Your task to perform on an android device: Search for "razer blade" on amazon, select the first entry, and add it to the cart. Image 0: 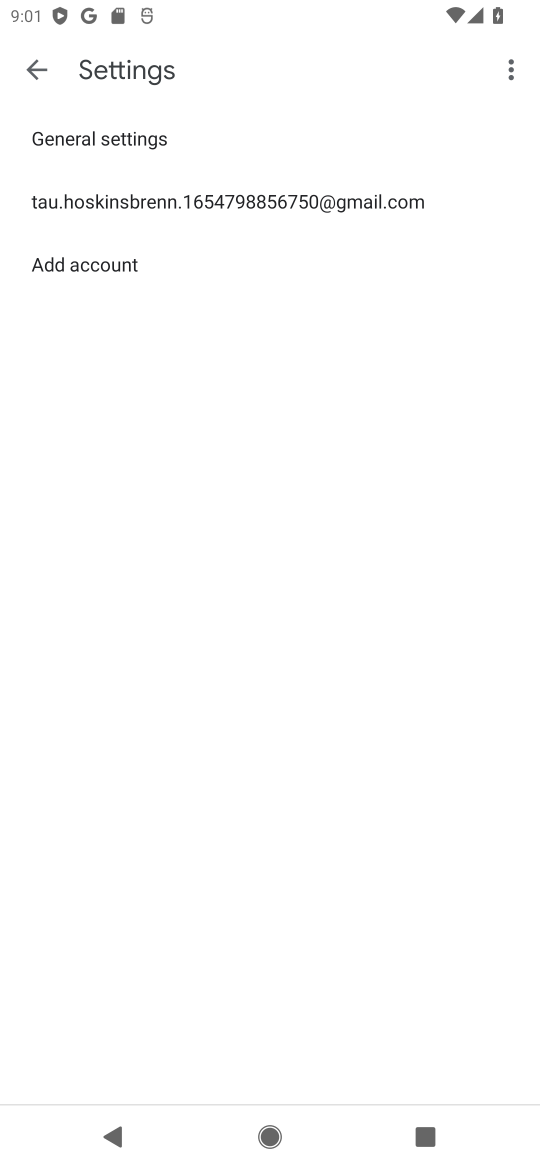
Step 0: press home button
Your task to perform on an android device: Search for "razer blade" on amazon, select the first entry, and add it to the cart. Image 1: 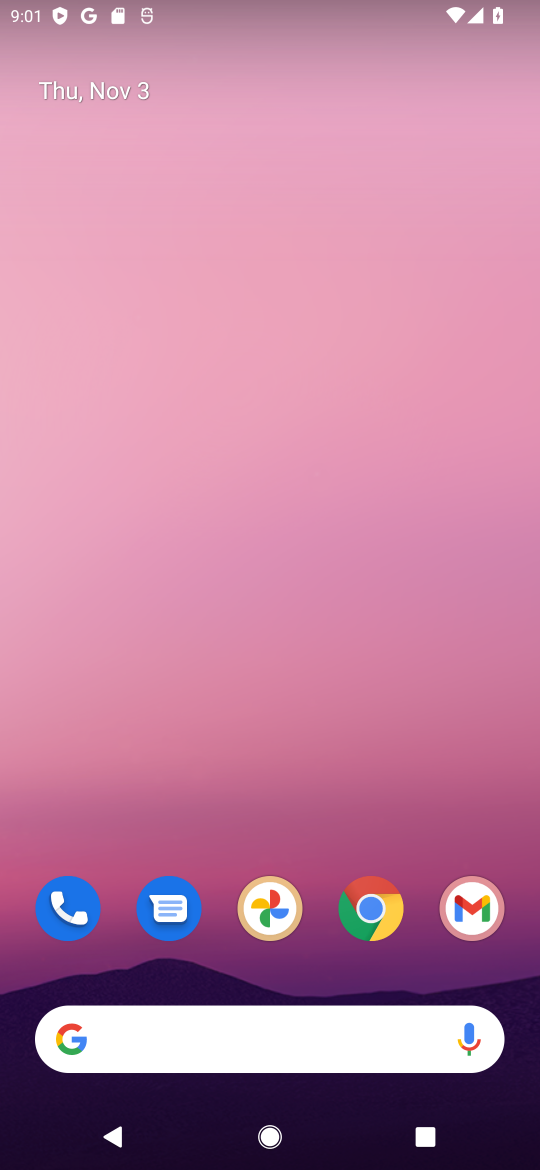
Step 1: click (376, 928)
Your task to perform on an android device: Search for "razer blade" on amazon, select the first entry, and add it to the cart. Image 2: 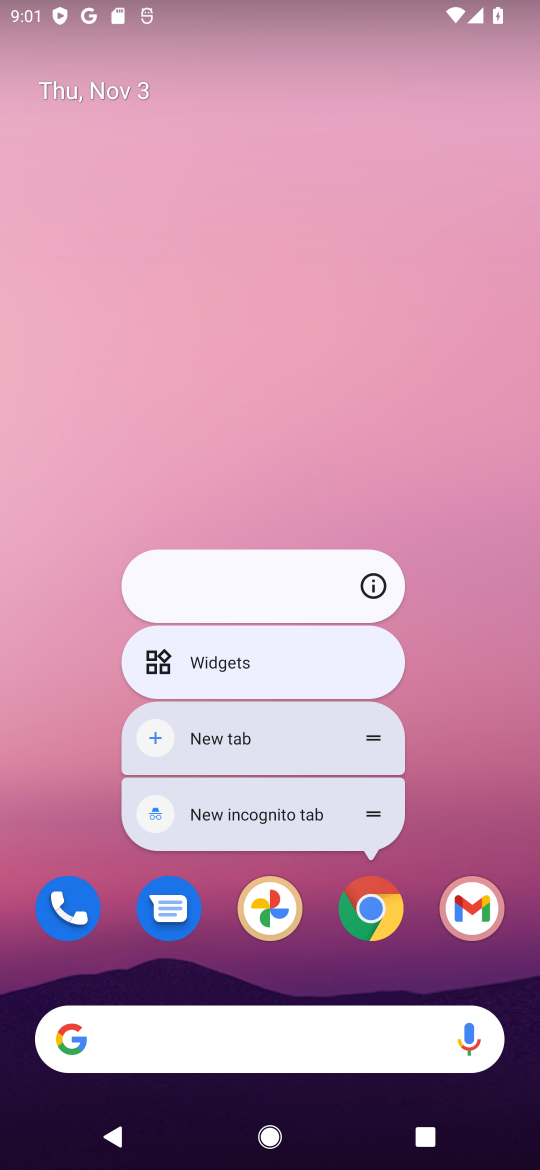
Step 2: click (376, 928)
Your task to perform on an android device: Search for "razer blade" on amazon, select the first entry, and add it to the cart. Image 3: 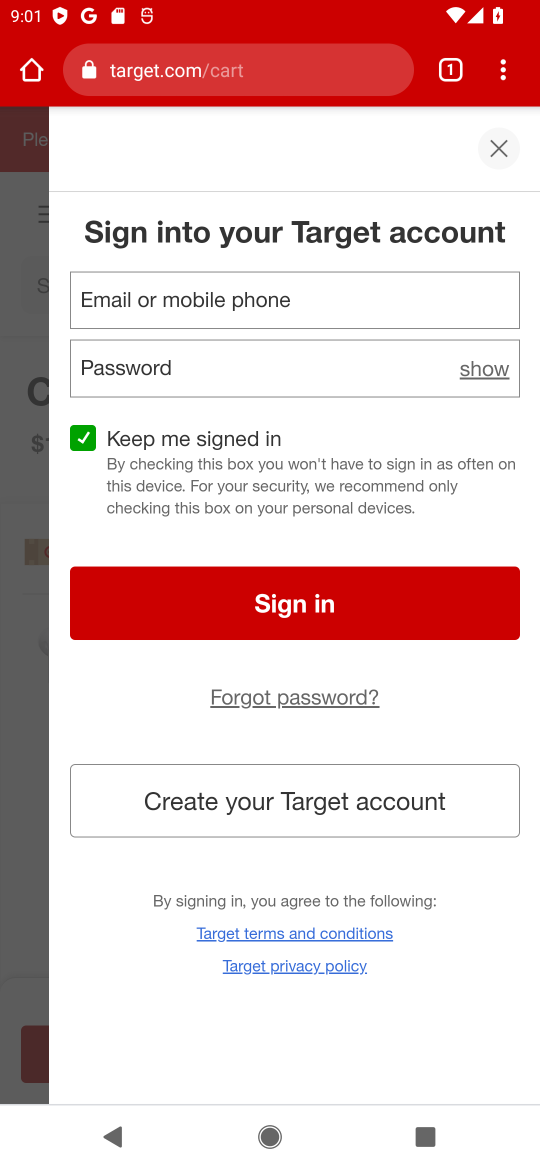
Step 3: click (496, 143)
Your task to perform on an android device: Search for "razer blade" on amazon, select the first entry, and add it to the cart. Image 4: 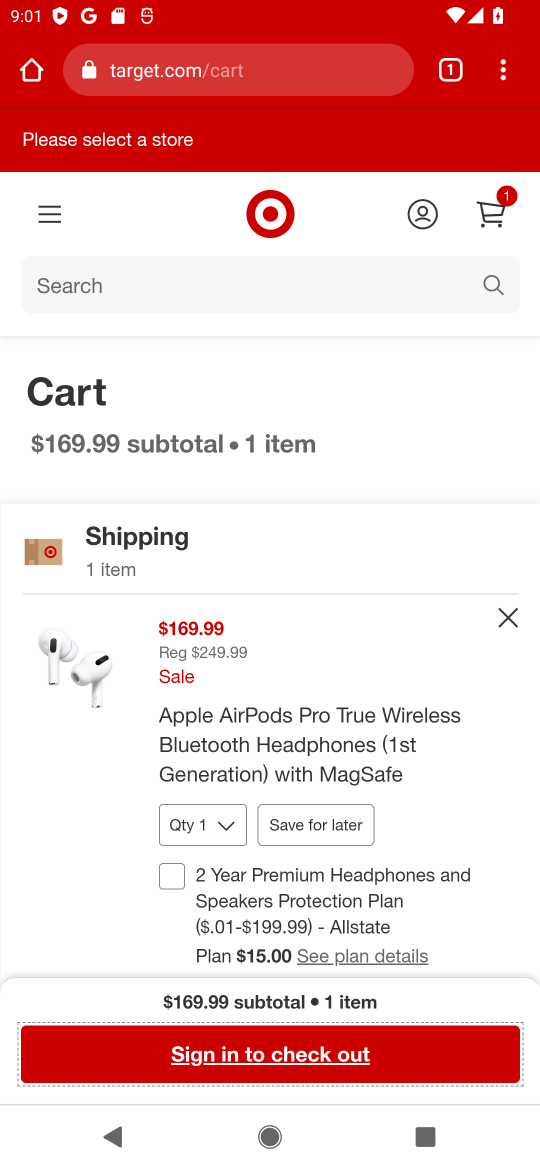
Step 4: click (314, 63)
Your task to perform on an android device: Search for "razer blade" on amazon, select the first entry, and add it to the cart. Image 5: 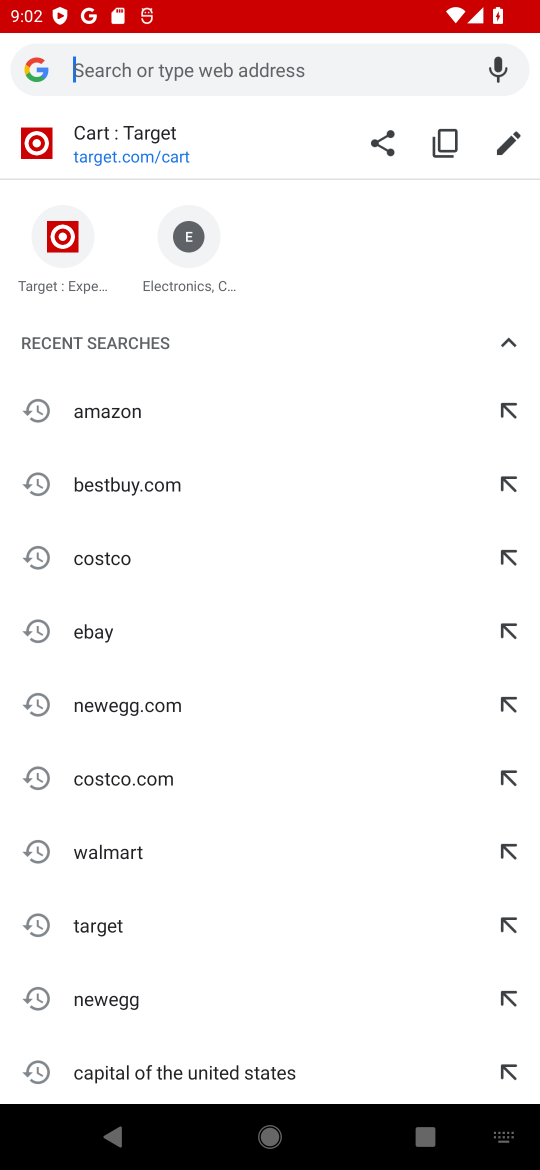
Step 5: click (123, 407)
Your task to perform on an android device: Search for "razer blade" on amazon, select the first entry, and add it to the cart. Image 6: 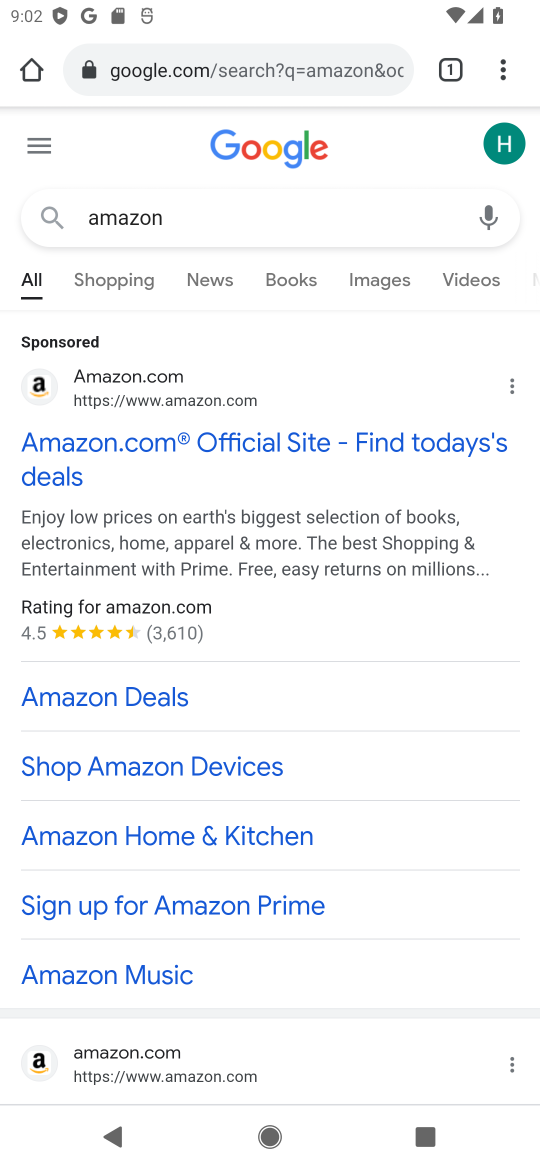
Step 6: click (182, 393)
Your task to perform on an android device: Search for "razer blade" on amazon, select the first entry, and add it to the cart. Image 7: 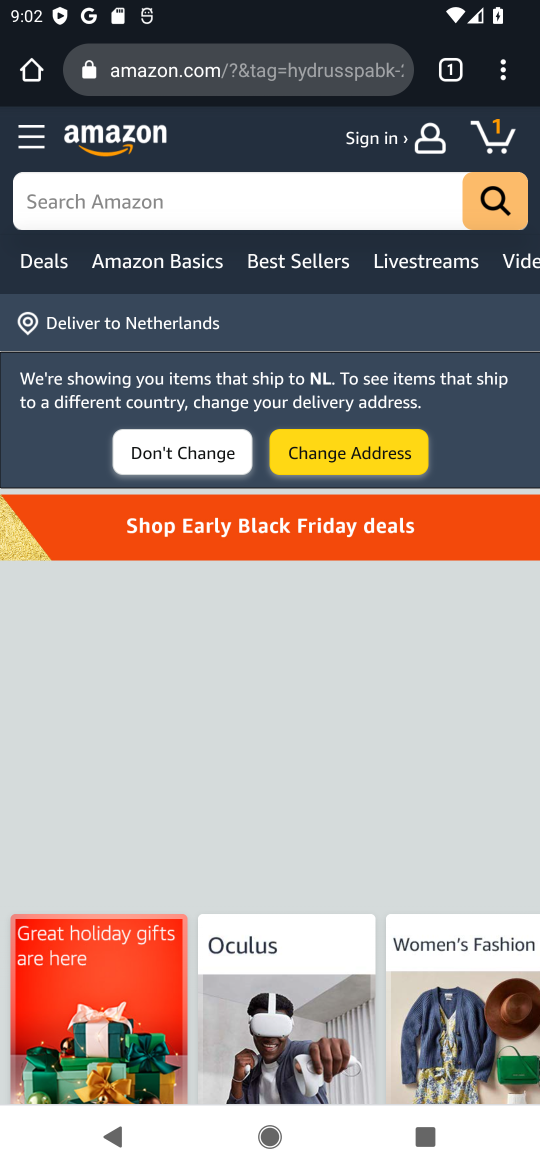
Step 7: click (224, 182)
Your task to perform on an android device: Search for "razer blade" on amazon, select the first entry, and add it to the cart. Image 8: 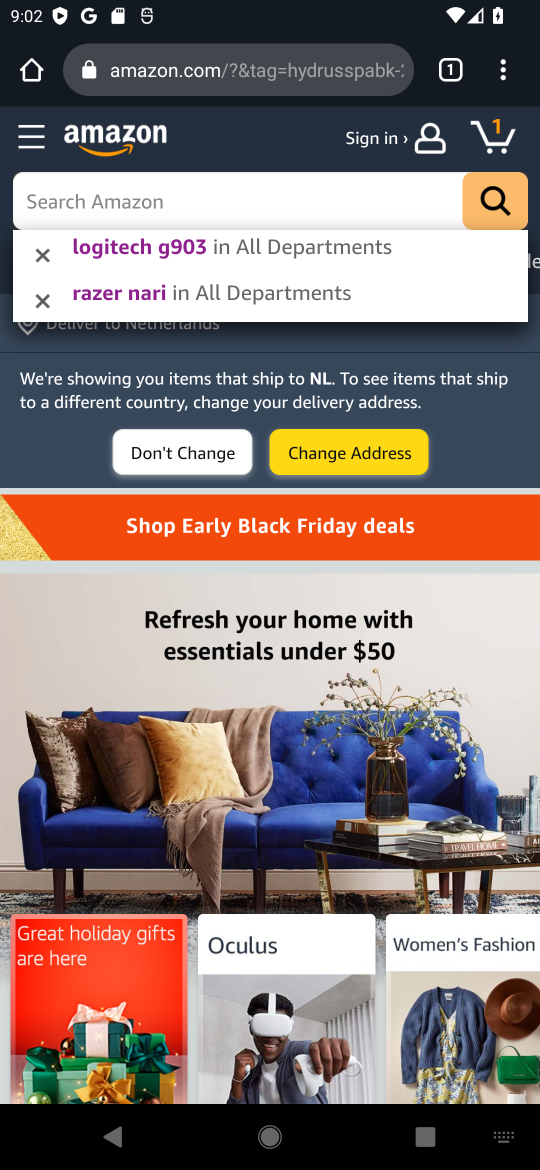
Step 8: type "razer blade"
Your task to perform on an android device: Search for "razer blade" on amazon, select the first entry, and add it to the cart. Image 9: 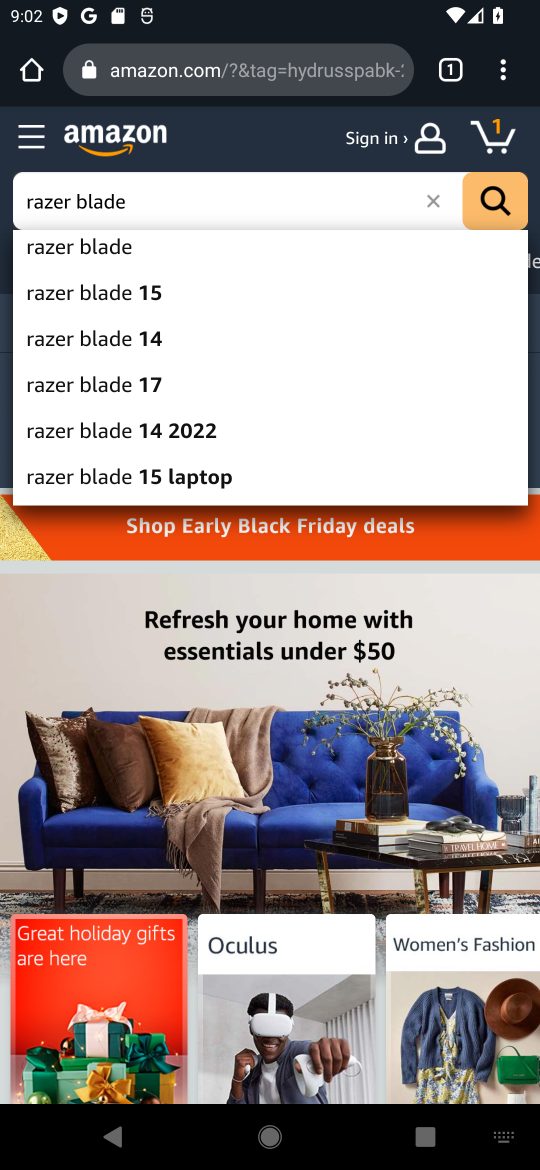
Step 9: click (102, 249)
Your task to perform on an android device: Search for "razer blade" on amazon, select the first entry, and add it to the cart. Image 10: 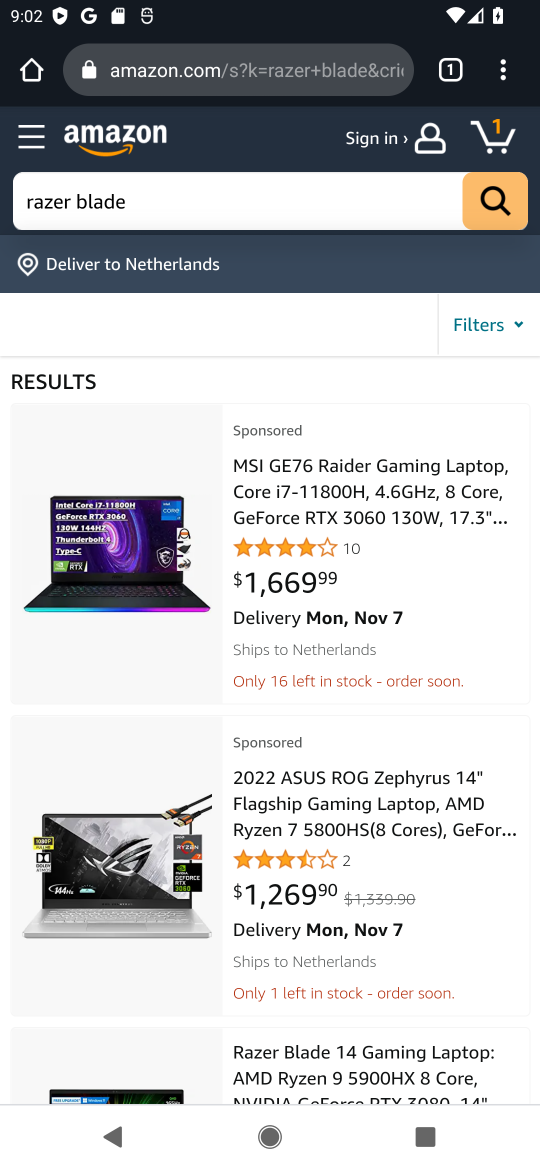
Step 10: drag from (300, 946) to (296, 703)
Your task to perform on an android device: Search for "razer blade" on amazon, select the first entry, and add it to the cart. Image 11: 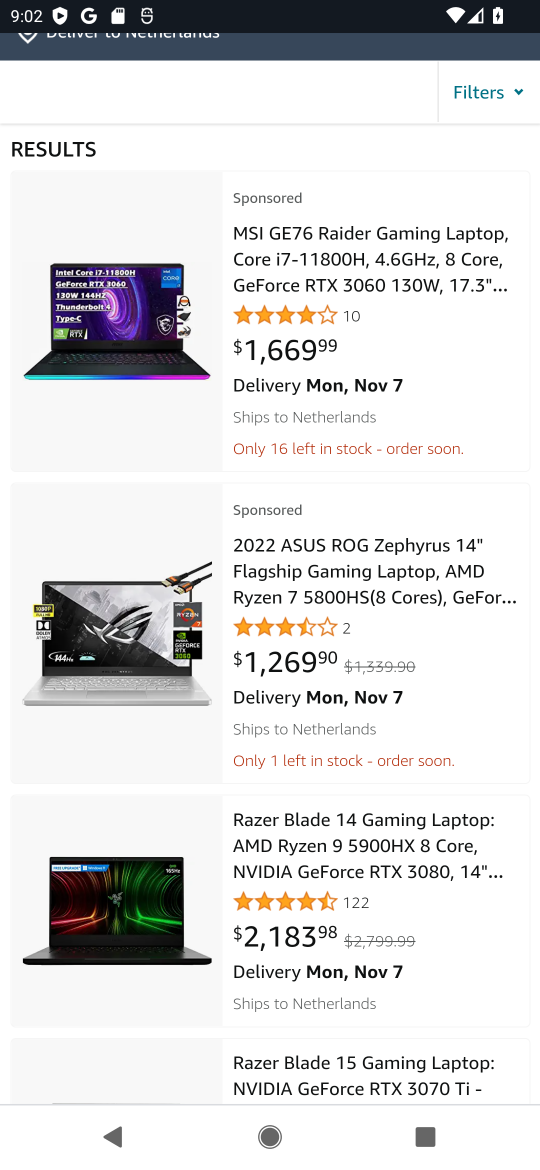
Step 11: click (119, 863)
Your task to perform on an android device: Search for "razer blade" on amazon, select the first entry, and add it to the cart. Image 12: 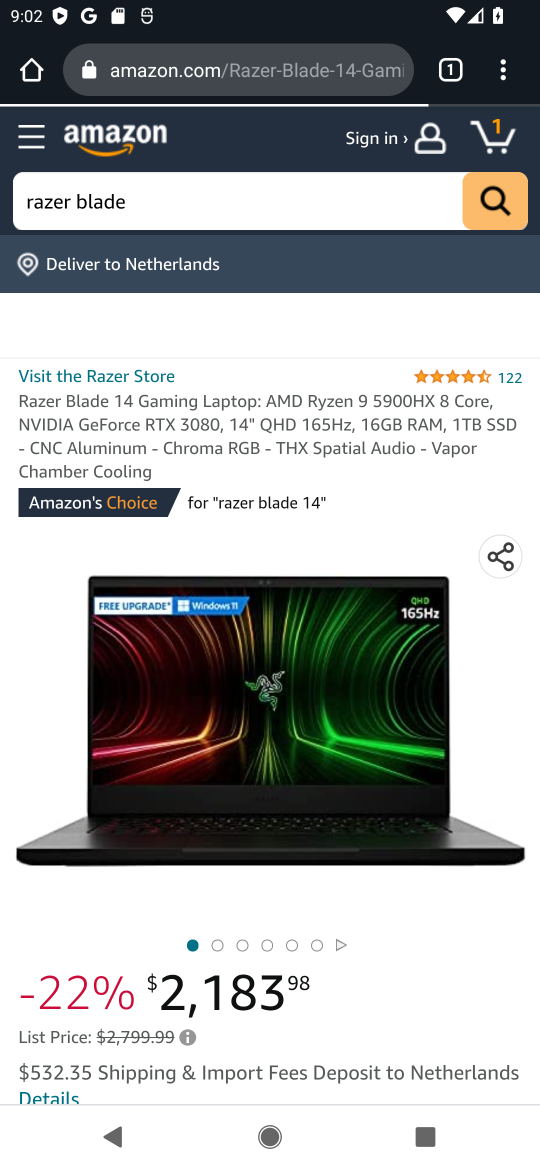
Step 12: drag from (433, 979) to (489, 511)
Your task to perform on an android device: Search for "razer blade" on amazon, select the first entry, and add it to the cart. Image 13: 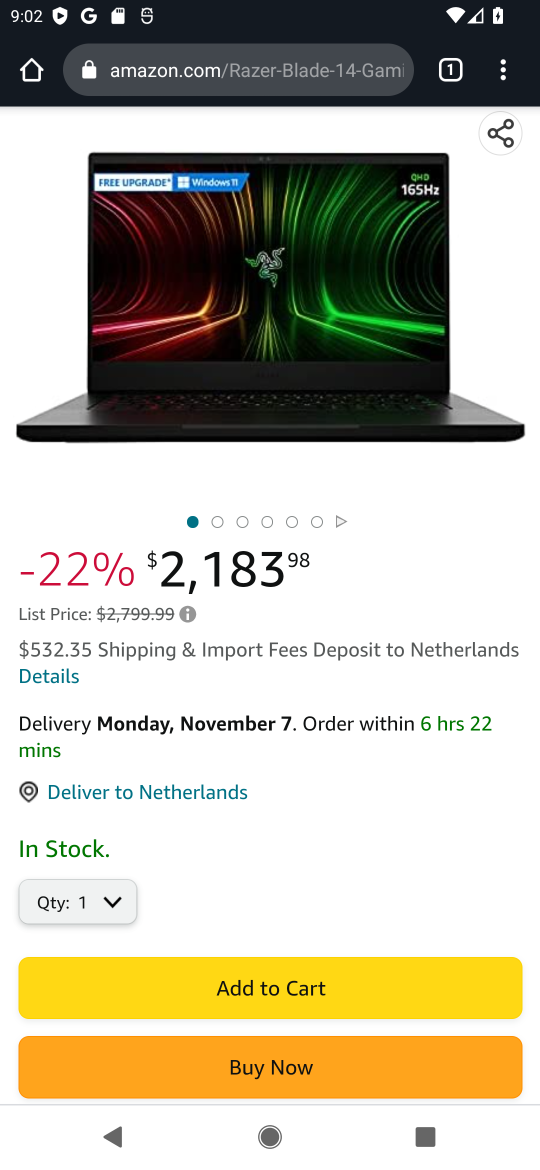
Step 13: click (318, 974)
Your task to perform on an android device: Search for "razer blade" on amazon, select the first entry, and add it to the cart. Image 14: 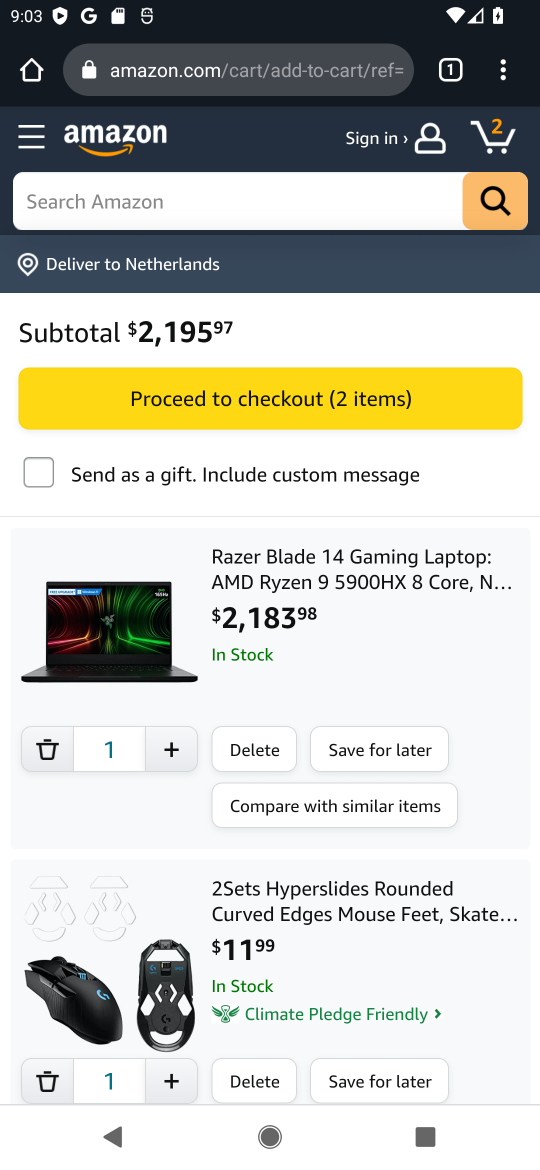
Step 14: task complete